Your task to perform on an android device: search for accent chairs on article.com Image 0: 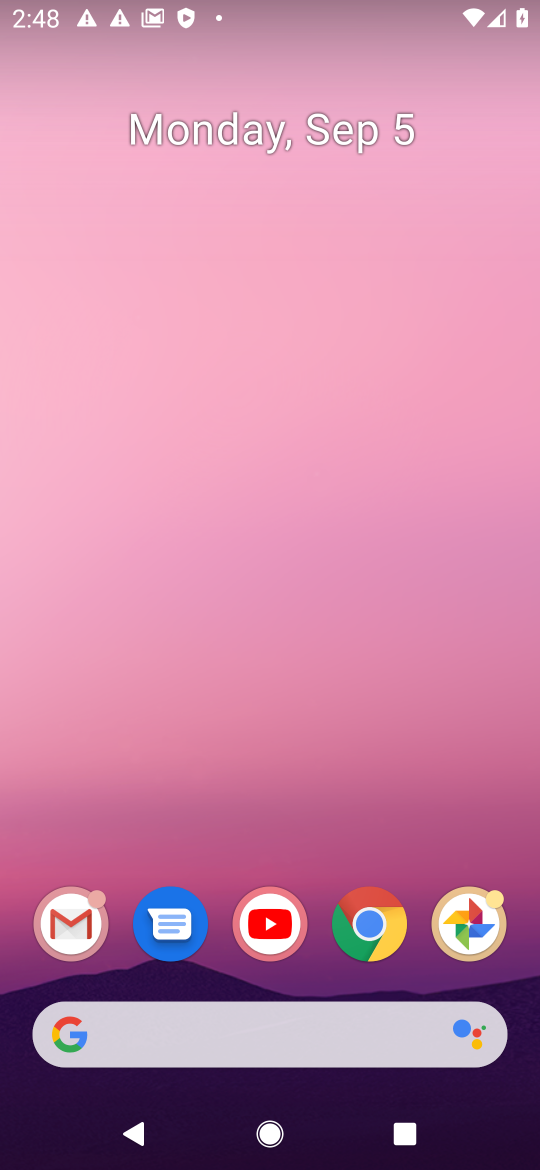
Step 0: drag from (325, 1002) to (303, 20)
Your task to perform on an android device: search for accent chairs on article.com Image 1: 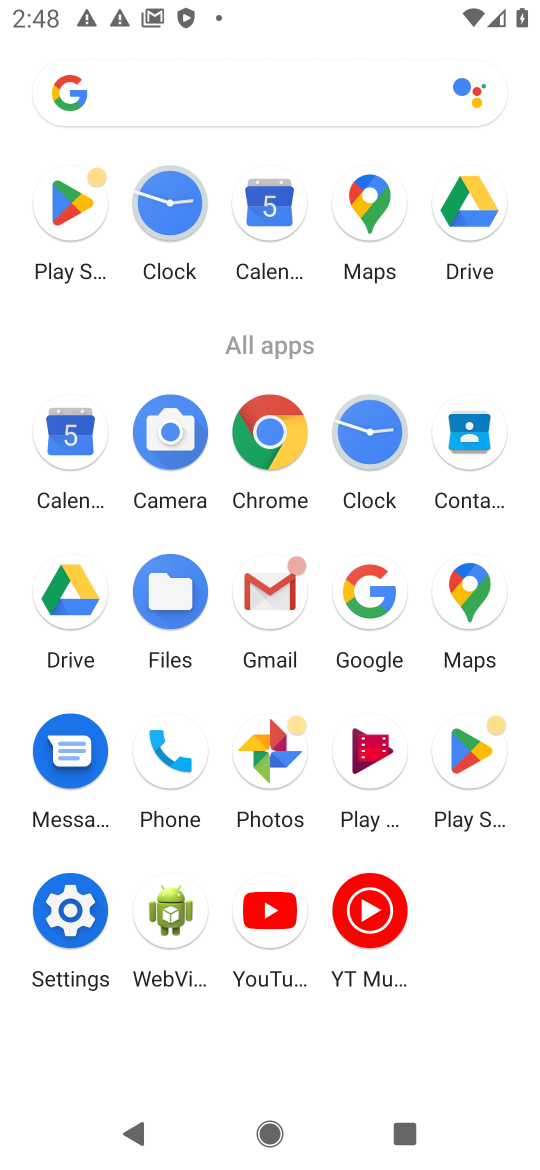
Step 1: click (392, 589)
Your task to perform on an android device: search for accent chairs on article.com Image 2: 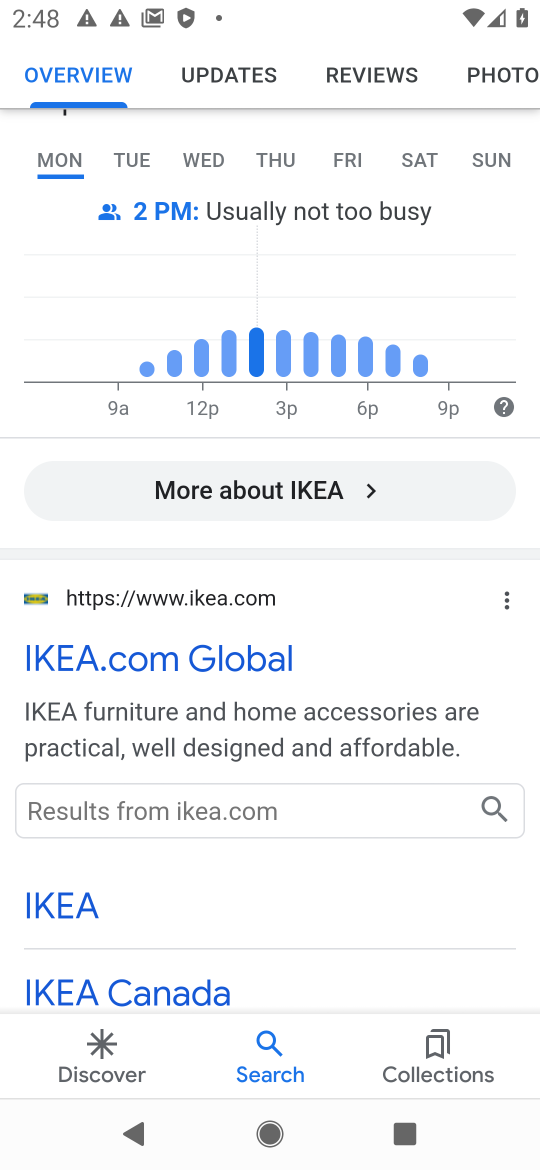
Step 2: drag from (351, 414) to (371, 1082)
Your task to perform on an android device: search for accent chairs on article.com Image 3: 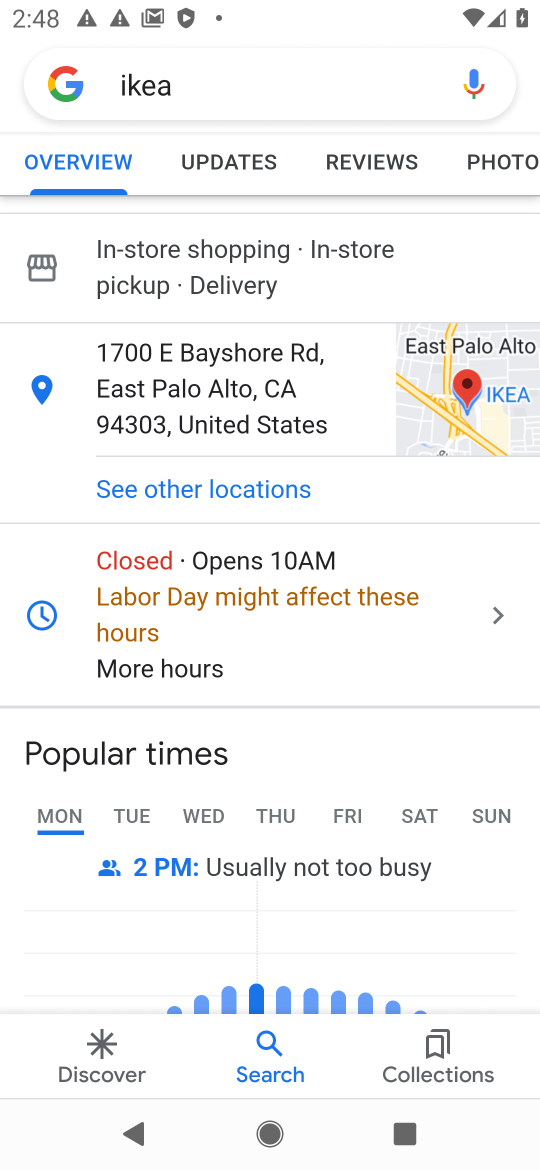
Step 3: click (208, 103)
Your task to perform on an android device: search for accent chairs on article.com Image 4: 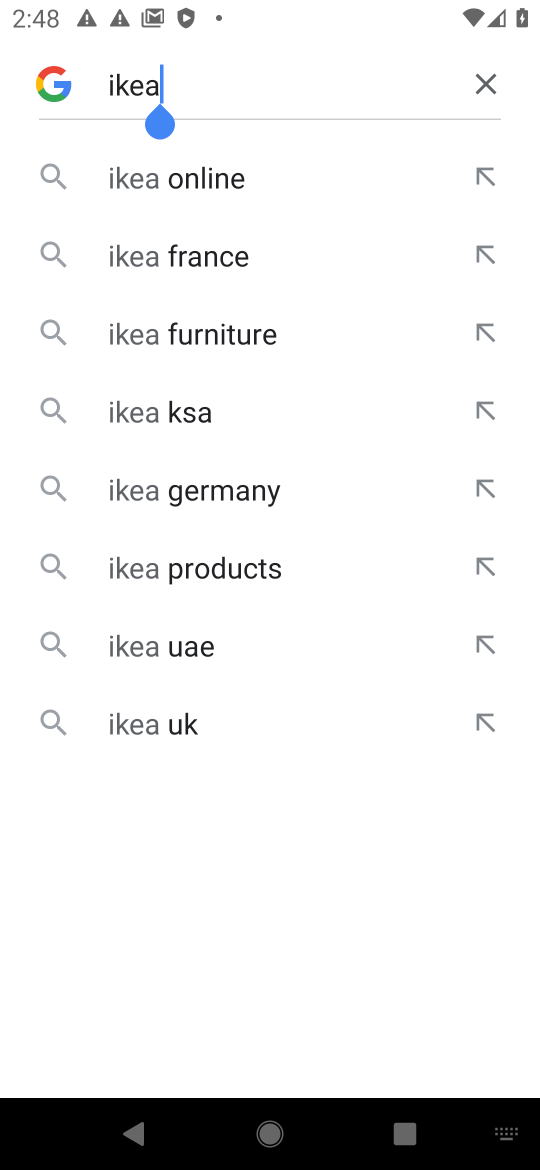
Step 4: click (473, 75)
Your task to perform on an android device: search for accent chairs on article.com Image 5: 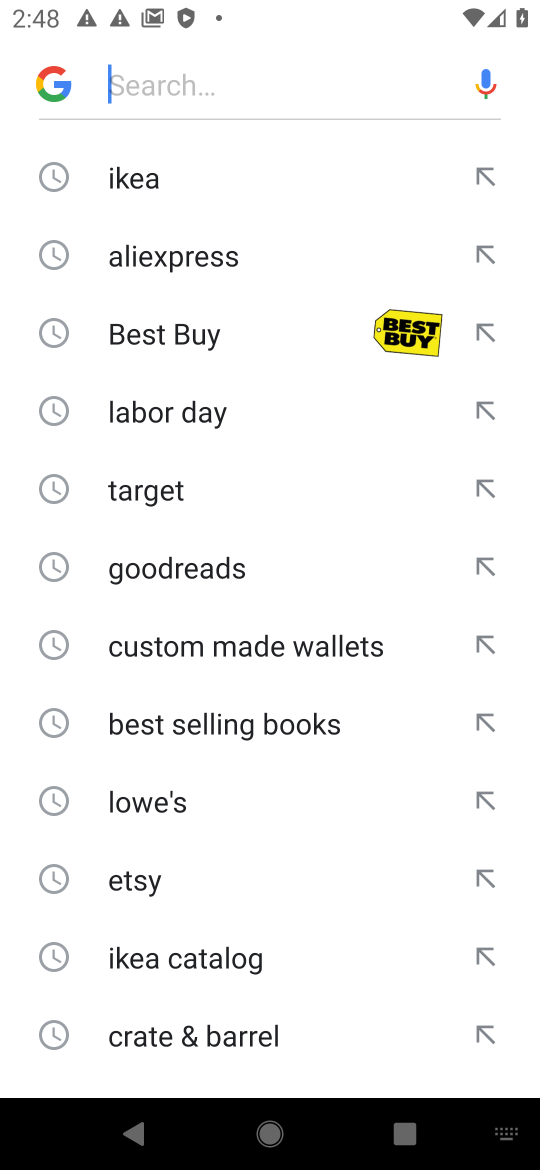
Step 5: type "article.com"
Your task to perform on an android device: search for accent chairs on article.com Image 6: 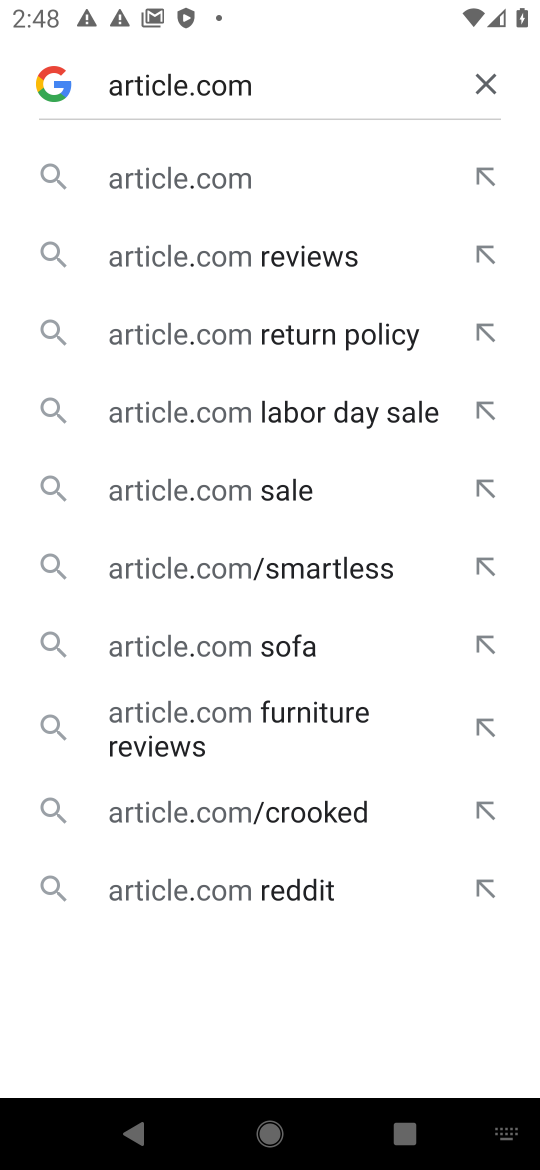
Step 6: type ""
Your task to perform on an android device: search for accent chairs on article.com Image 7: 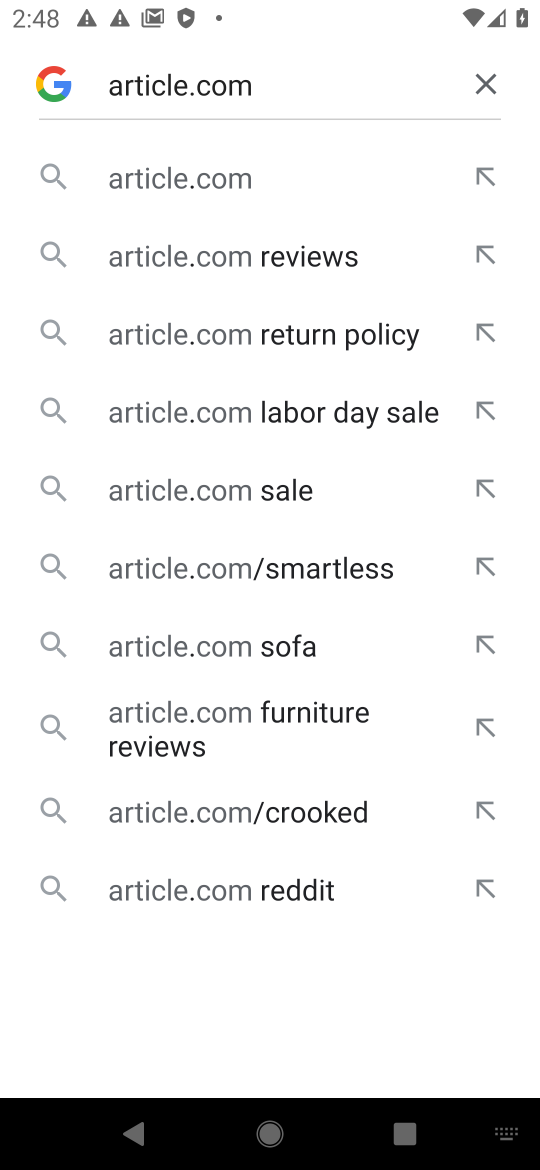
Step 7: click (189, 153)
Your task to perform on an android device: search for accent chairs on article.com Image 8: 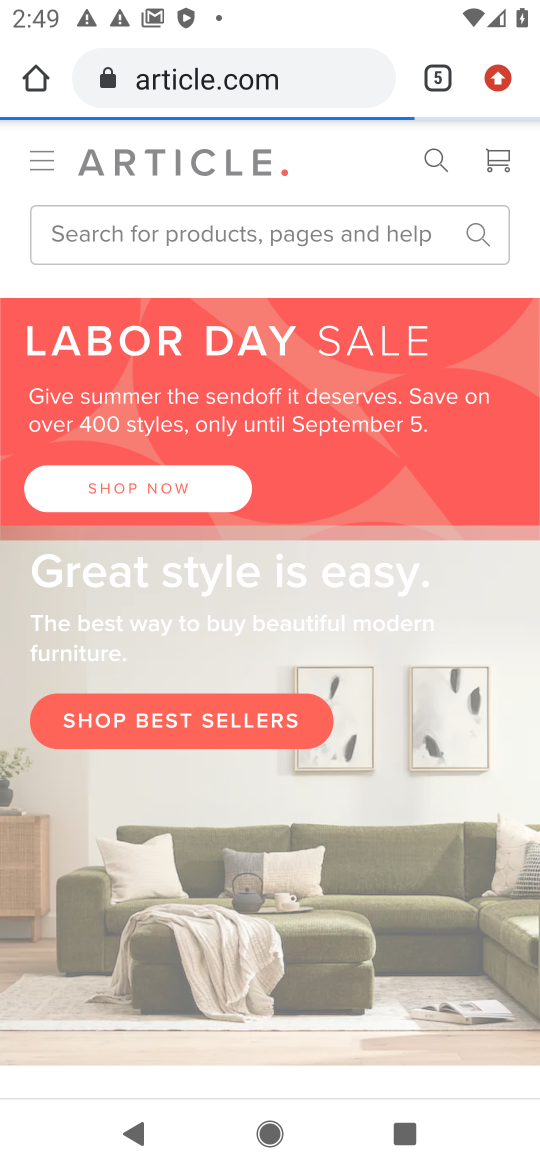
Step 8: click (299, 251)
Your task to perform on an android device: search for accent chairs on article.com Image 9: 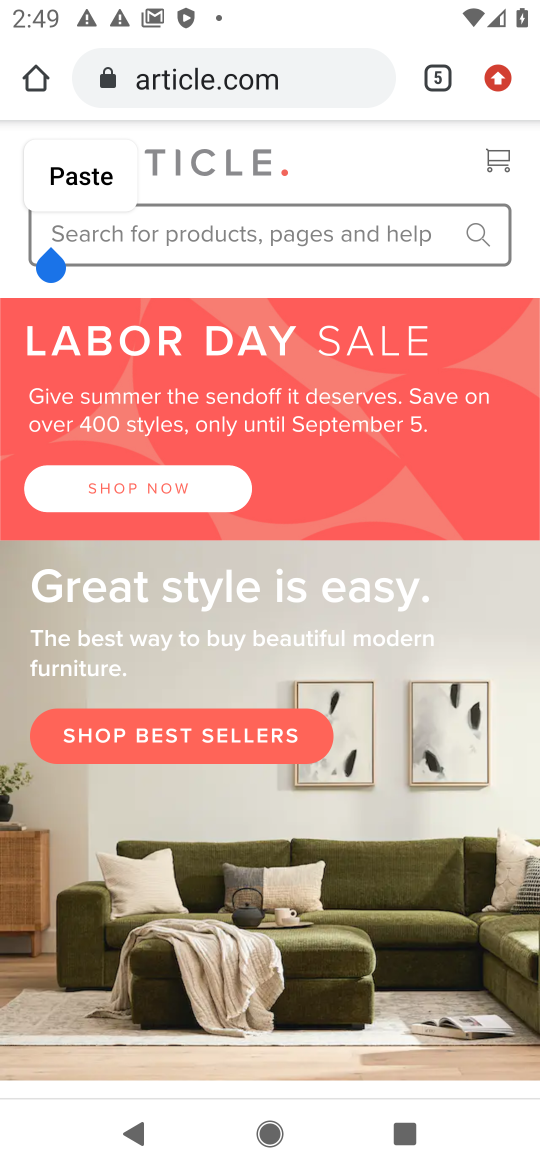
Step 9: type "accent chairs"
Your task to perform on an android device: search for accent chairs on article.com Image 10: 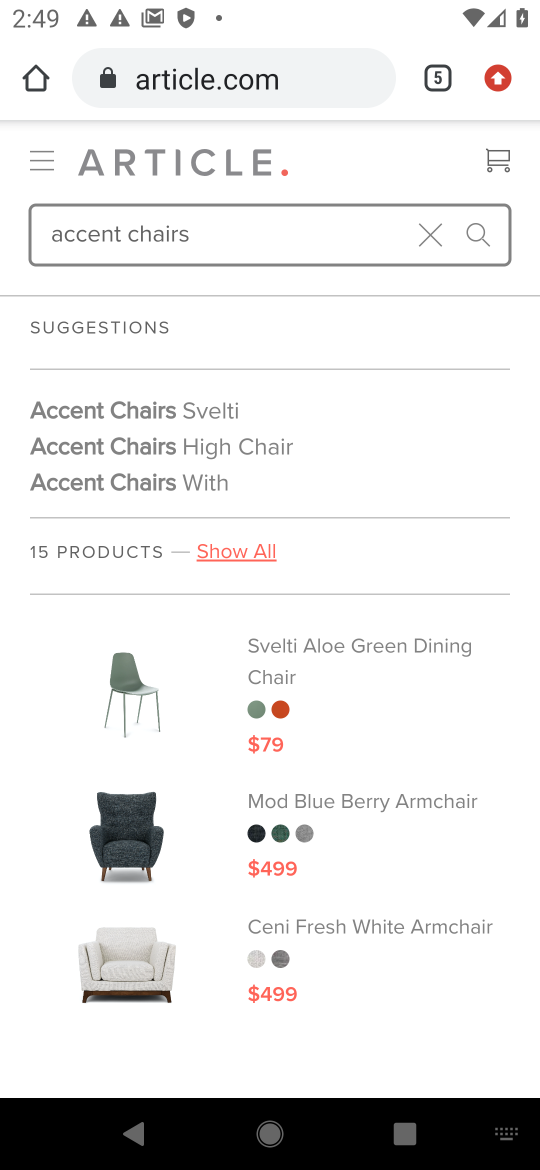
Step 10: task complete